Your task to perform on an android device: delete a single message in the gmail app Image 0: 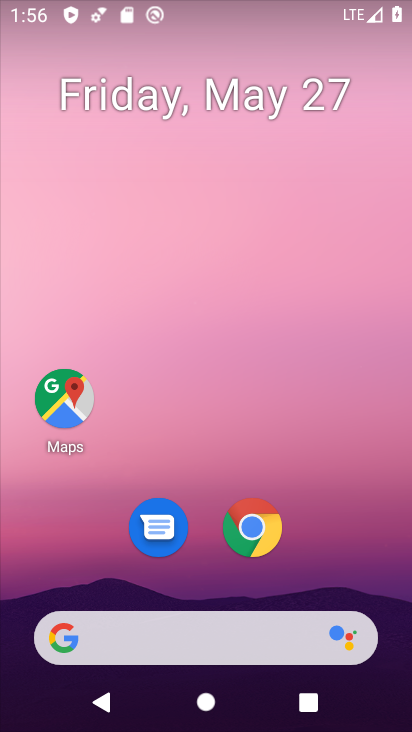
Step 0: drag from (160, 691) to (213, 28)
Your task to perform on an android device: delete a single message in the gmail app Image 1: 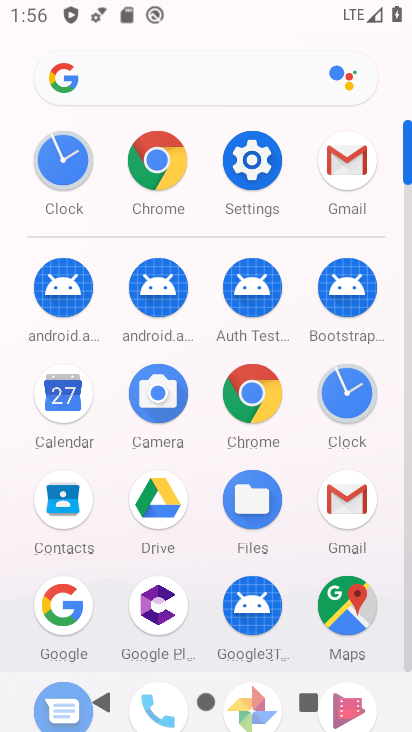
Step 1: click (340, 151)
Your task to perform on an android device: delete a single message in the gmail app Image 2: 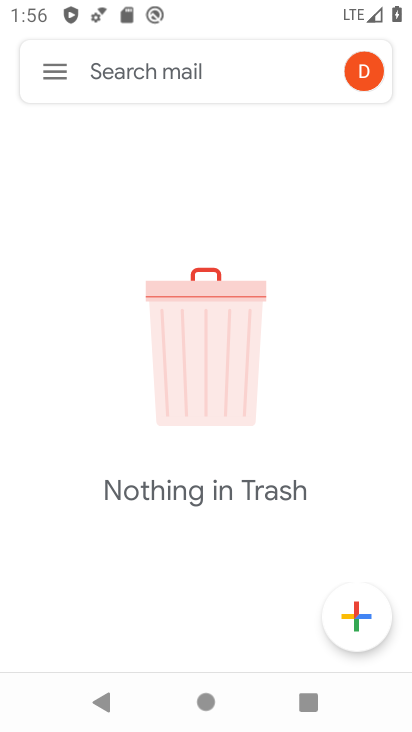
Step 2: click (58, 71)
Your task to perform on an android device: delete a single message in the gmail app Image 3: 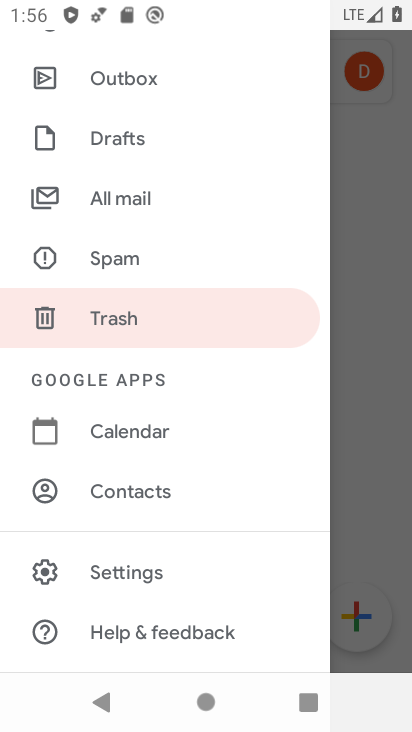
Step 3: click (167, 198)
Your task to perform on an android device: delete a single message in the gmail app Image 4: 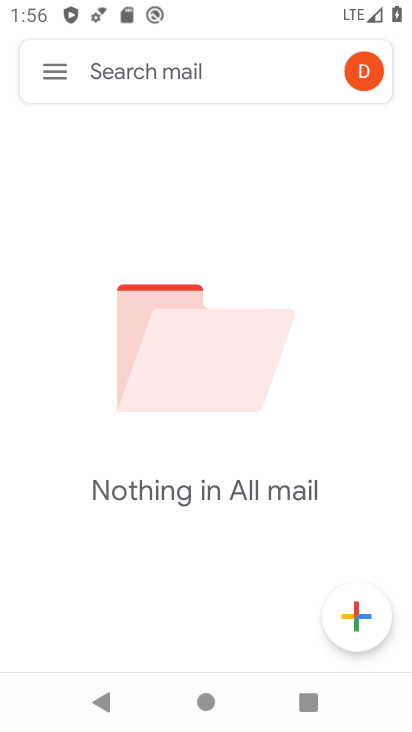
Step 4: task complete